Your task to perform on an android device: Show me popular videos on Youtube Image 0: 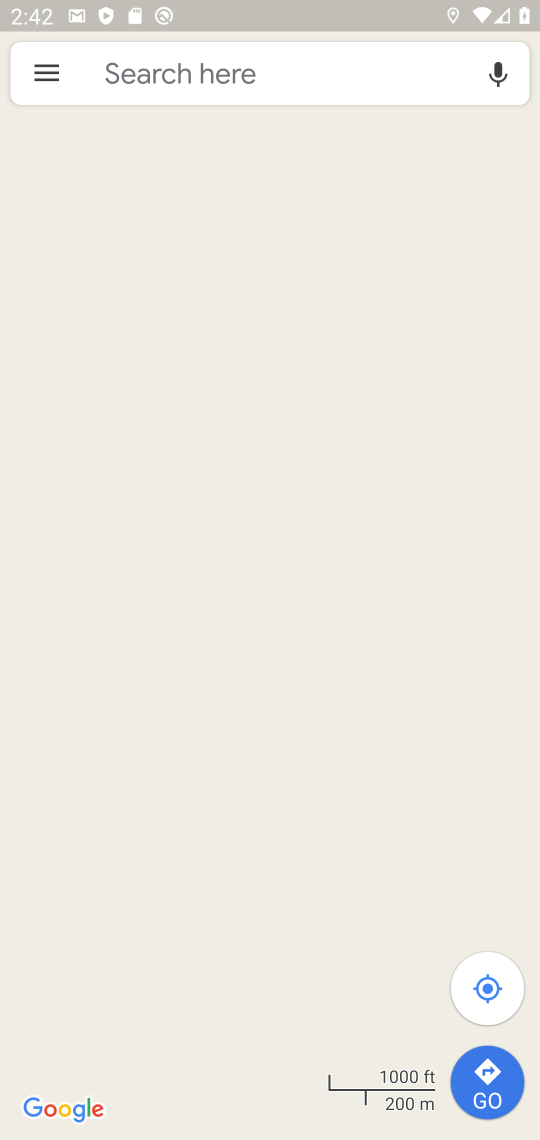
Step 0: press home button
Your task to perform on an android device: Show me popular videos on Youtube Image 1: 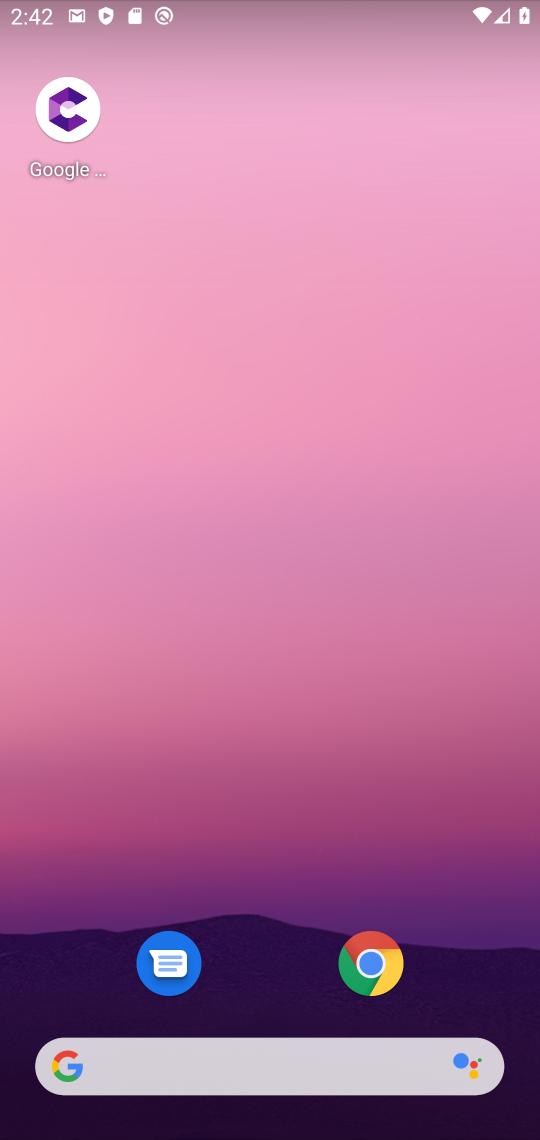
Step 1: drag from (514, 980) to (505, 5)
Your task to perform on an android device: Show me popular videos on Youtube Image 2: 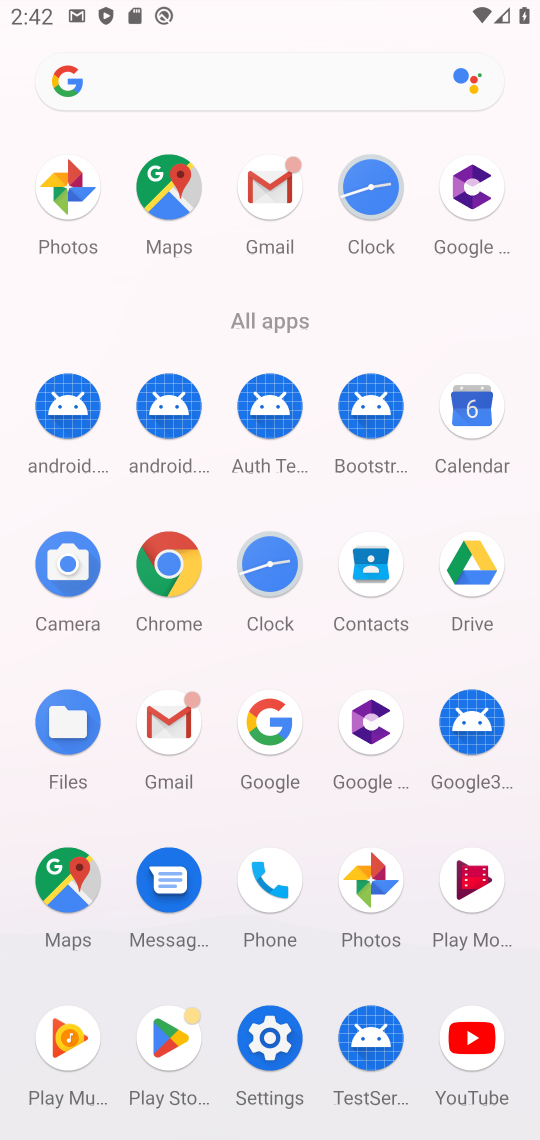
Step 2: click (477, 1040)
Your task to perform on an android device: Show me popular videos on Youtube Image 3: 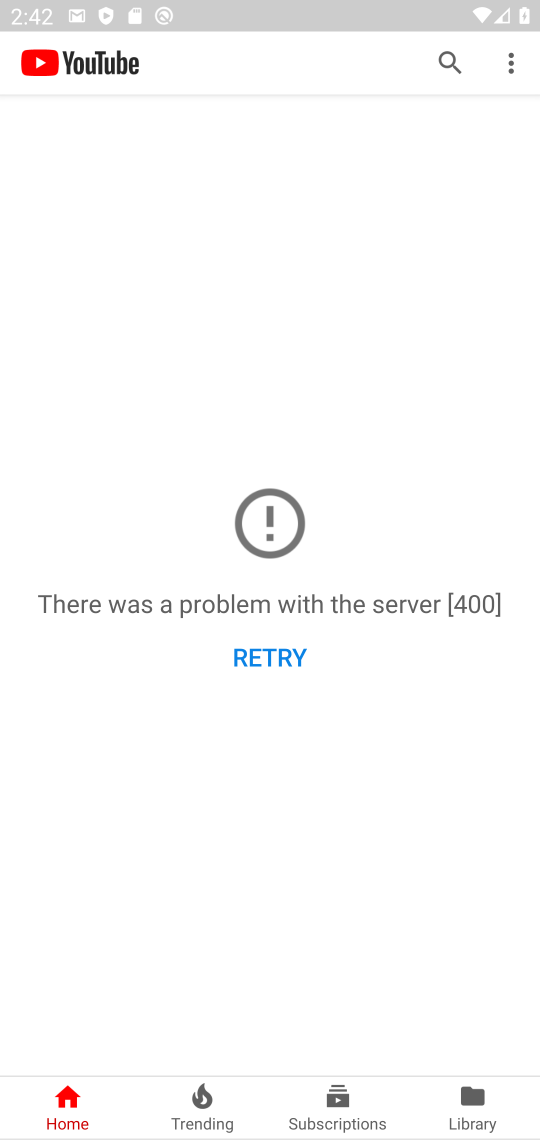
Step 3: click (286, 655)
Your task to perform on an android device: Show me popular videos on Youtube Image 4: 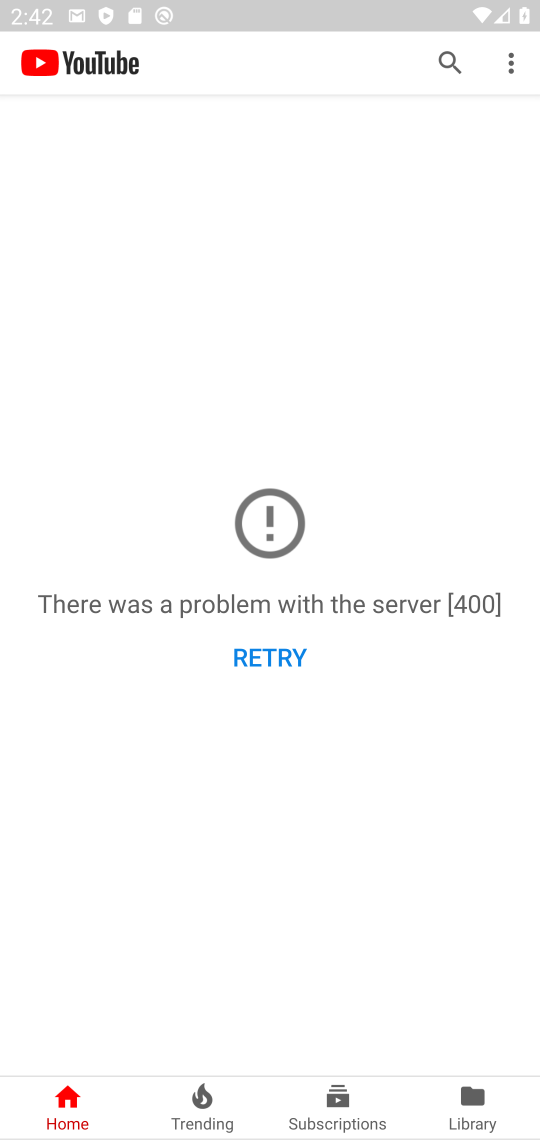
Step 4: task complete